Your task to perform on an android device: turn off notifications in google photos Image 0: 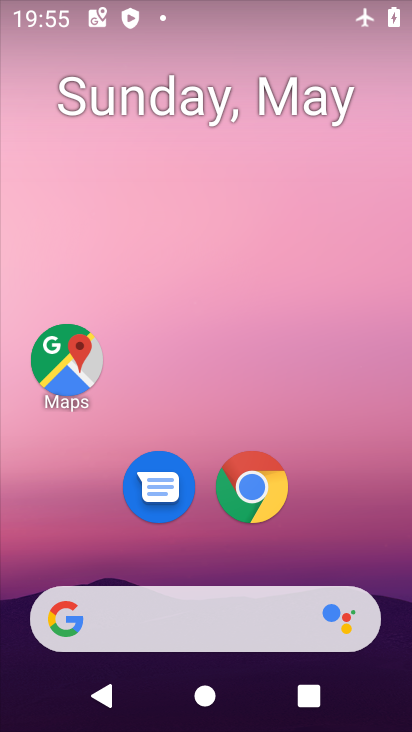
Step 0: drag from (384, 575) to (387, 248)
Your task to perform on an android device: turn off notifications in google photos Image 1: 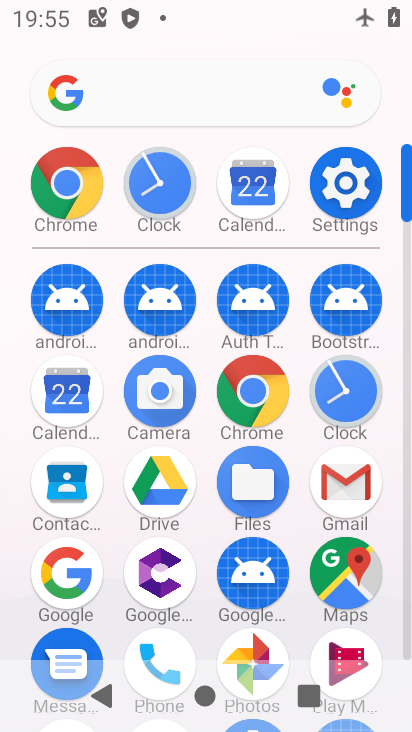
Step 1: drag from (395, 622) to (394, 272)
Your task to perform on an android device: turn off notifications in google photos Image 2: 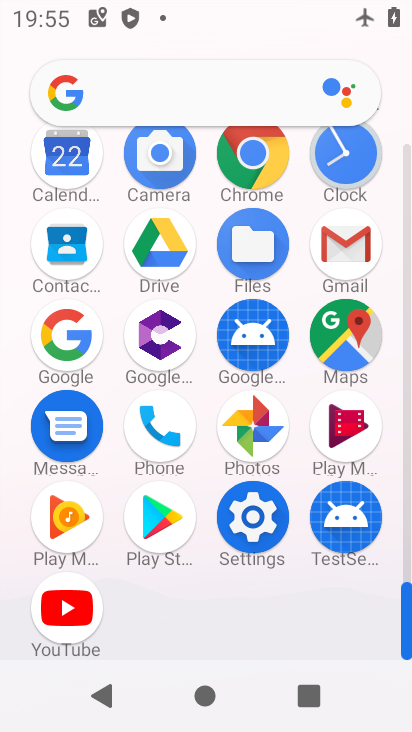
Step 2: click (253, 448)
Your task to perform on an android device: turn off notifications in google photos Image 3: 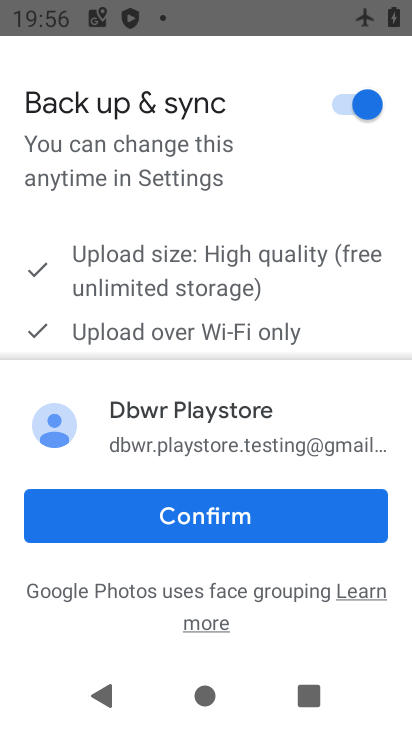
Step 3: click (362, 530)
Your task to perform on an android device: turn off notifications in google photos Image 4: 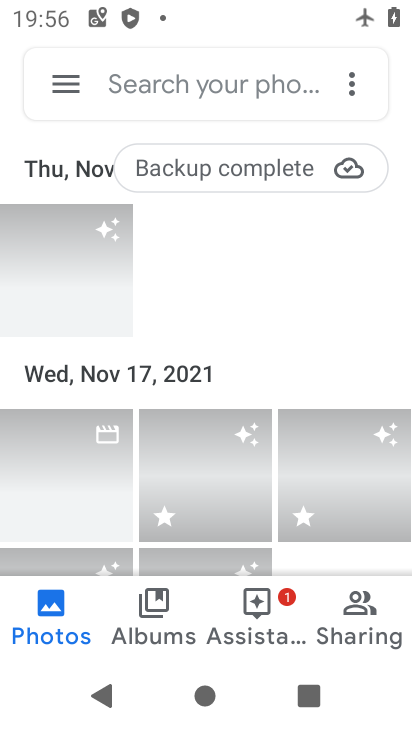
Step 4: click (60, 89)
Your task to perform on an android device: turn off notifications in google photos Image 5: 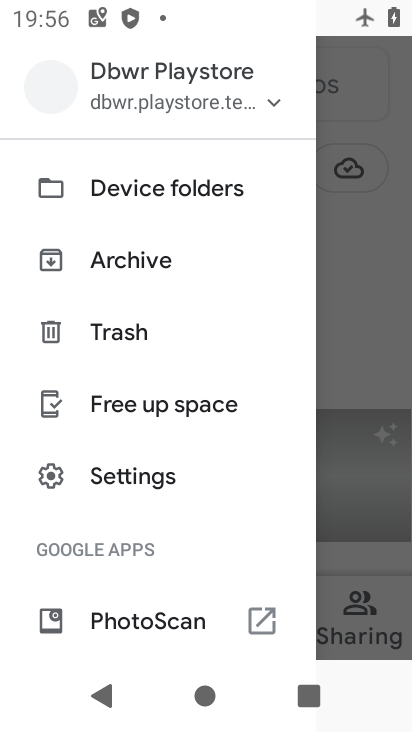
Step 5: drag from (245, 478) to (247, 344)
Your task to perform on an android device: turn off notifications in google photos Image 6: 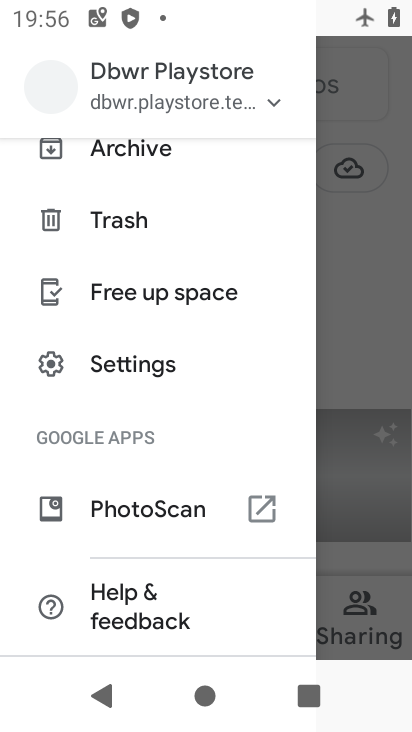
Step 6: click (167, 382)
Your task to perform on an android device: turn off notifications in google photos Image 7: 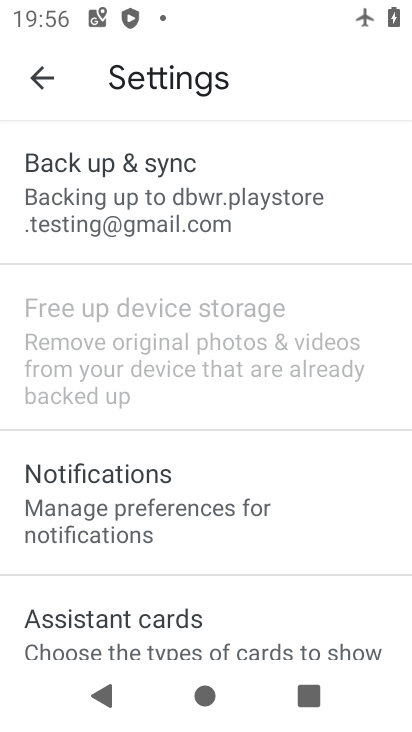
Step 7: drag from (339, 545) to (349, 393)
Your task to perform on an android device: turn off notifications in google photos Image 8: 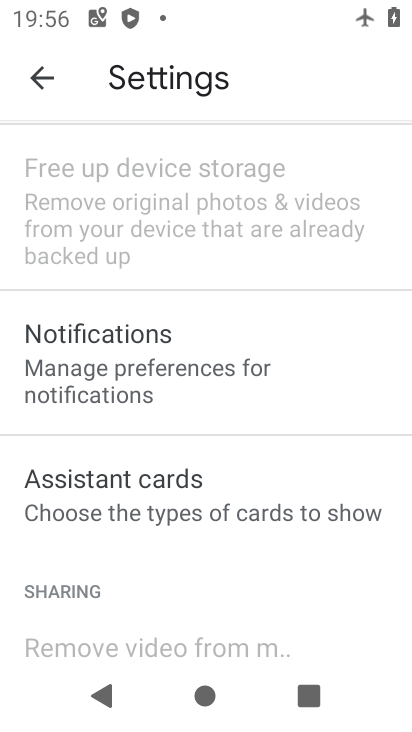
Step 8: drag from (323, 585) to (320, 429)
Your task to perform on an android device: turn off notifications in google photos Image 9: 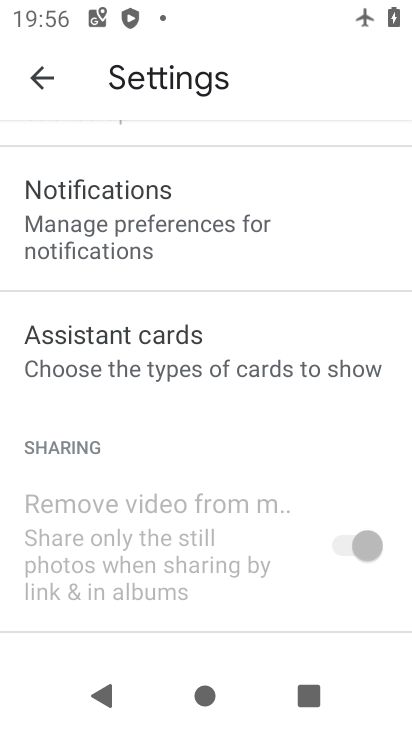
Step 9: drag from (294, 607) to (294, 432)
Your task to perform on an android device: turn off notifications in google photos Image 10: 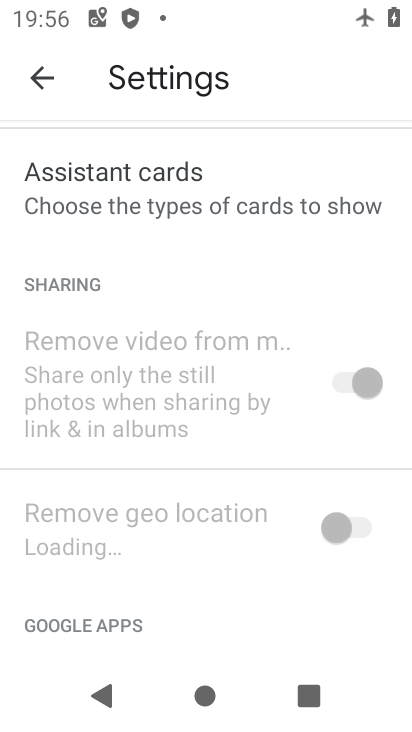
Step 10: drag from (277, 630) to (291, 500)
Your task to perform on an android device: turn off notifications in google photos Image 11: 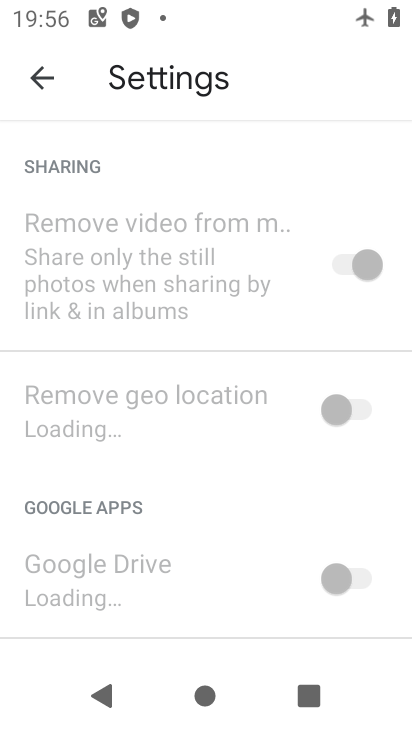
Step 11: drag from (267, 585) to (266, 479)
Your task to perform on an android device: turn off notifications in google photos Image 12: 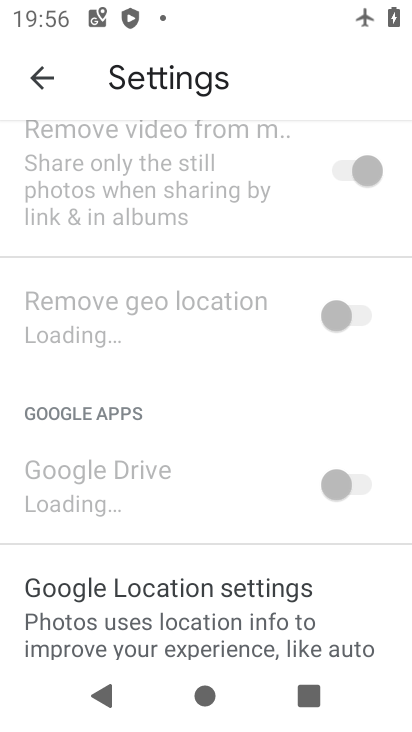
Step 12: drag from (269, 581) to (272, 429)
Your task to perform on an android device: turn off notifications in google photos Image 13: 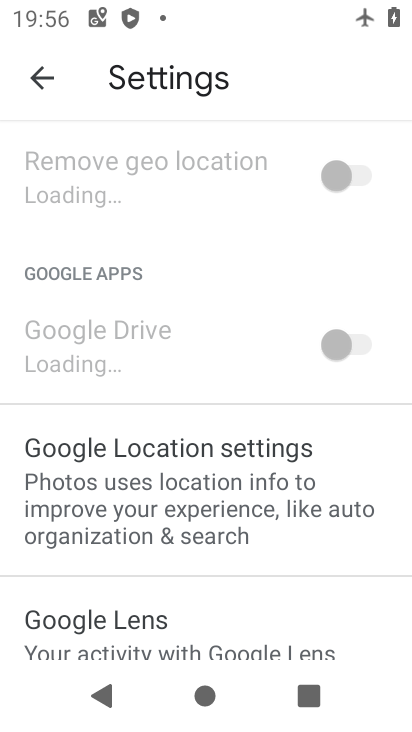
Step 13: drag from (273, 599) to (258, 432)
Your task to perform on an android device: turn off notifications in google photos Image 14: 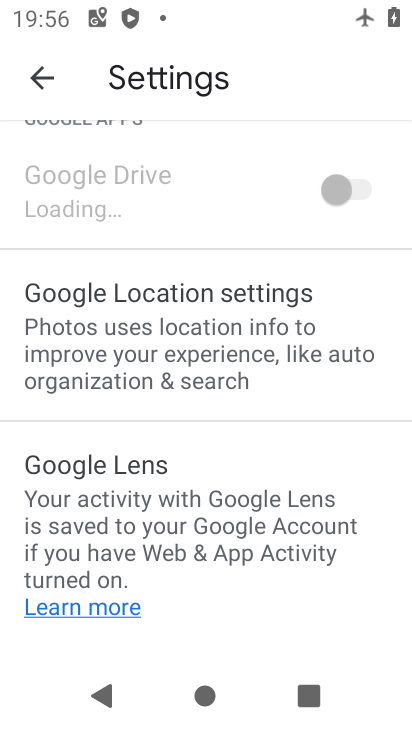
Step 14: drag from (261, 524) to (265, 406)
Your task to perform on an android device: turn off notifications in google photos Image 15: 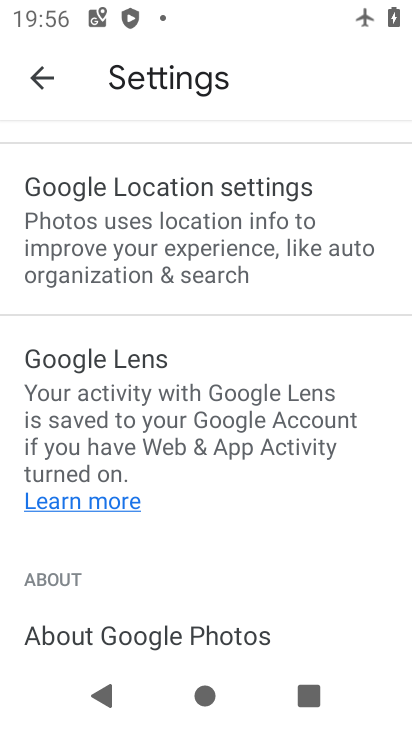
Step 15: drag from (292, 593) to (293, 452)
Your task to perform on an android device: turn off notifications in google photos Image 16: 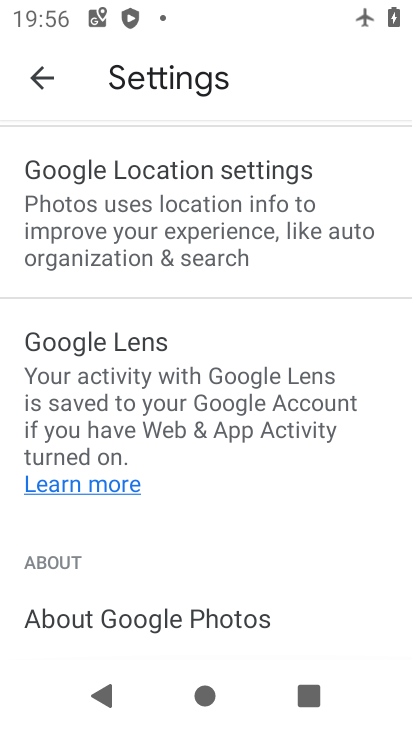
Step 16: drag from (360, 304) to (360, 466)
Your task to perform on an android device: turn off notifications in google photos Image 17: 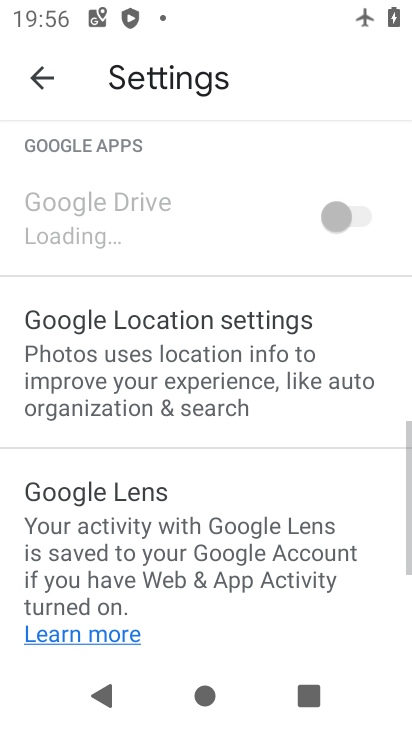
Step 17: drag from (361, 265) to (345, 408)
Your task to perform on an android device: turn off notifications in google photos Image 18: 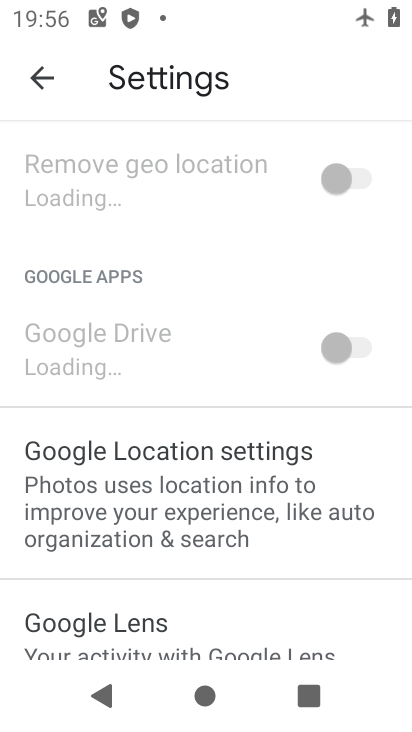
Step 18: drag from (366, 260) to (367, 379)
Your task to perform on an android device: turn off notifications in google photos Image 19: 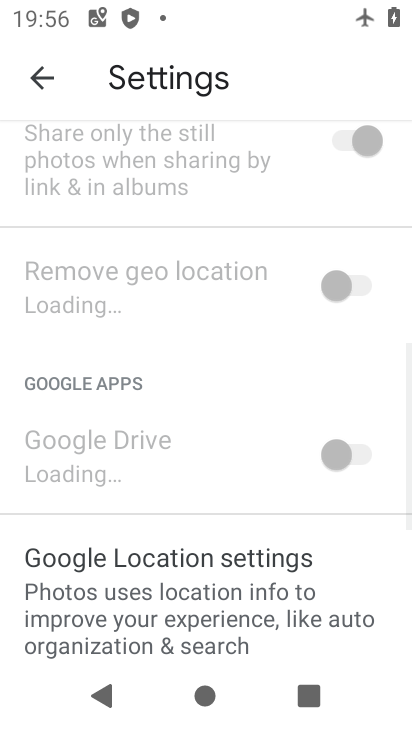
Step 19: drag from (378, 220) to (379, 326)
Your task to perform on an android device: turn off notifications in google photos Image 20: 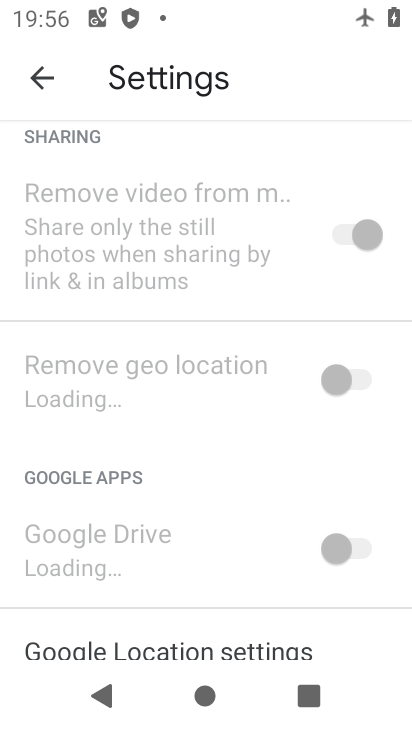
Step 20: drag from (387, 203) to (376, 328)
Your task to perform on an android device: turn off notifications in google photos Image 21: 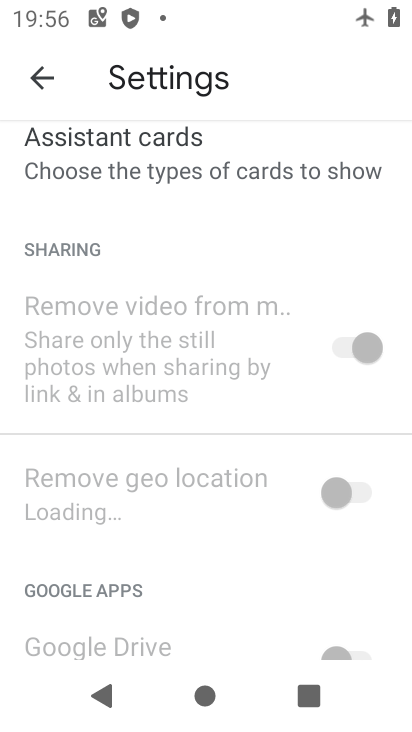
Step 21: drag from (368, 270) to (367, 400)
Your task to perform on an android device: turn off notifications in google photos Image 22: 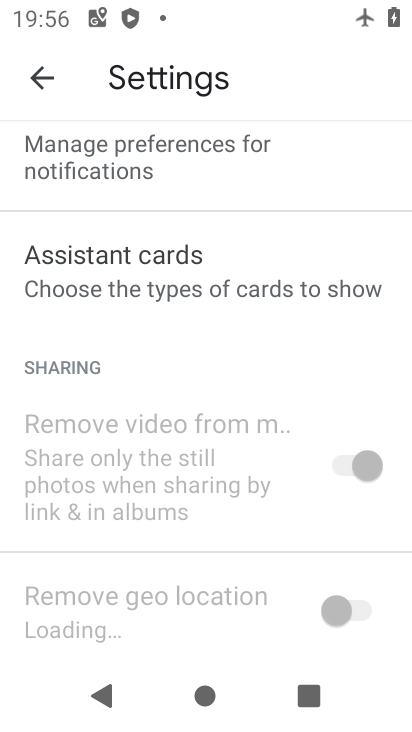
Step 22: drag from (349, 240) to (347, 360)
Your task to perform on an android device: turn off notifications in google photos Image 23: 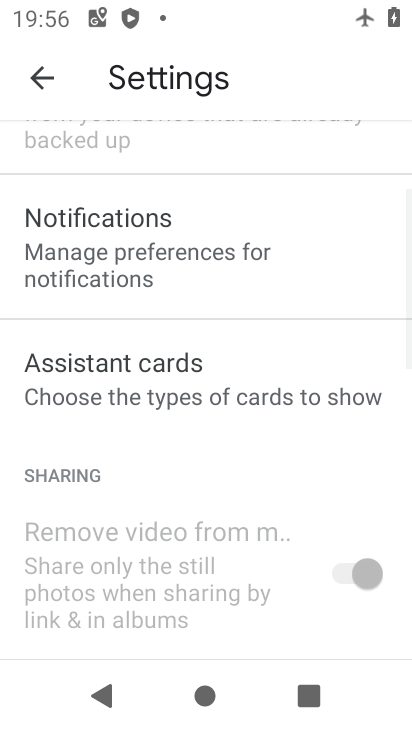
Step 23: drag from (331, 211) to (328, 355)
Your task to perform on an android device: turn off notifications in google photos Image 24: 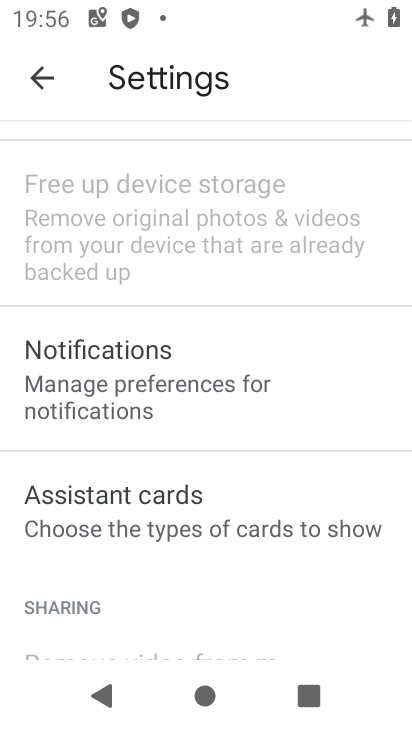
Step 24: drag from (328, 167) to (328, 340)
Your task to perform on an android device: turn off notifications in google photos Image 25: 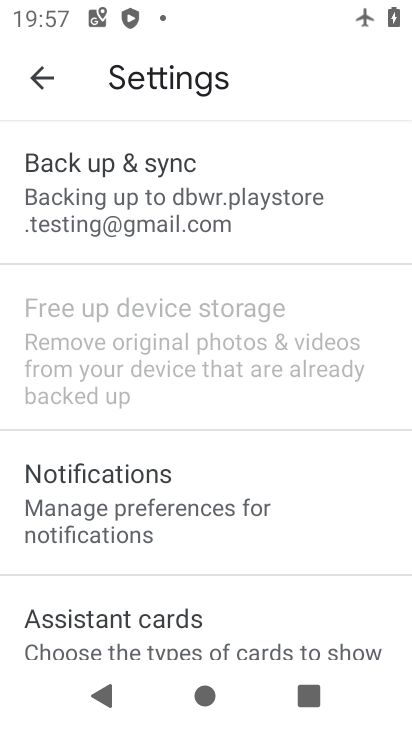
Step 25: click (153, 512)
Your task to perform on an android device: turn off notifications in google photos Image 26: 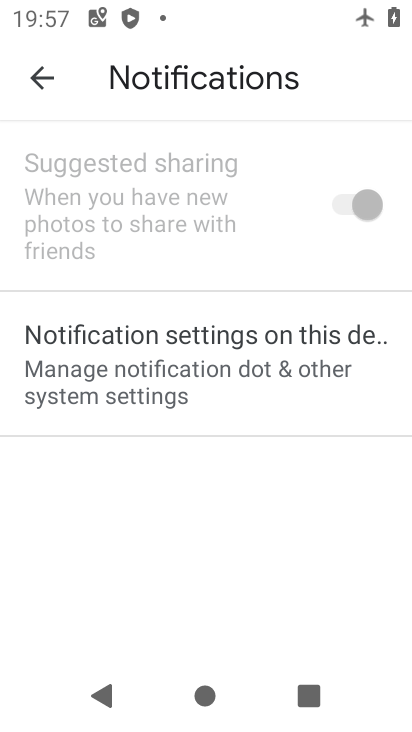
Step 26: click (217, 384)
Your task to perform on an android device: turn off notifications in google photos Image 27: 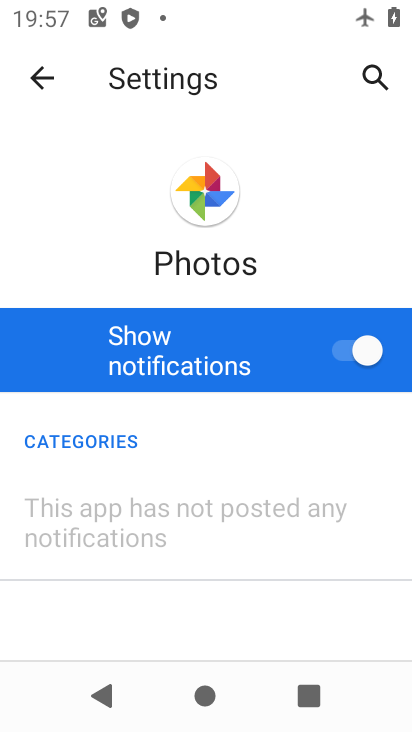
Step 27: click (377, 346)
Your task to perform on an android device: turn off notifications in google photos Image 28: 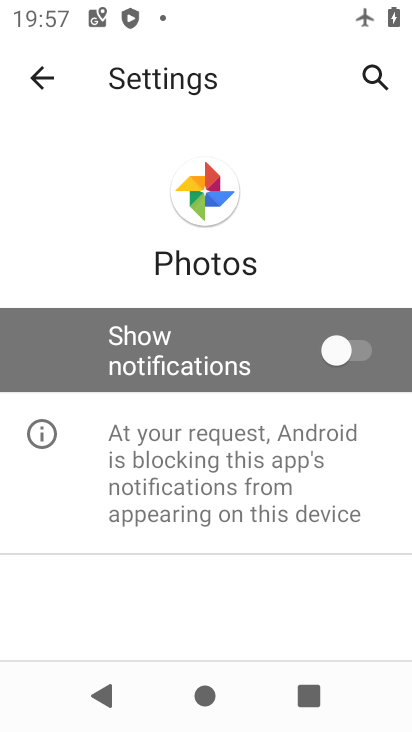
Step 28: task complete